Your task to perform on an android device: turn on showing notifications on the lock screen Image 0: 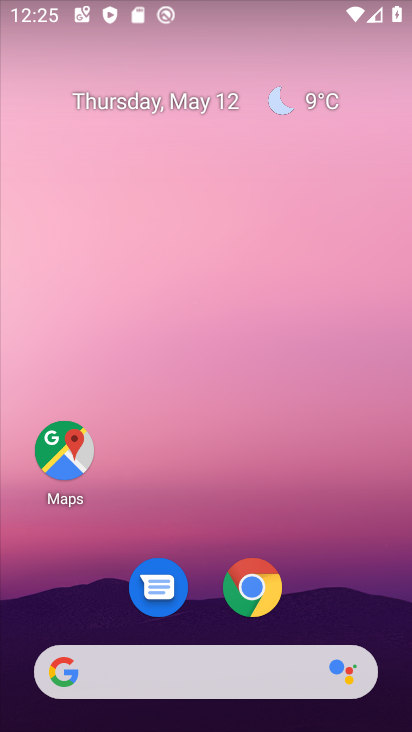
Step 0: drag from (203, 644) to (149, 49)
Your task to perform on an android device: turn on showing notifications on the lock screen Image 1: 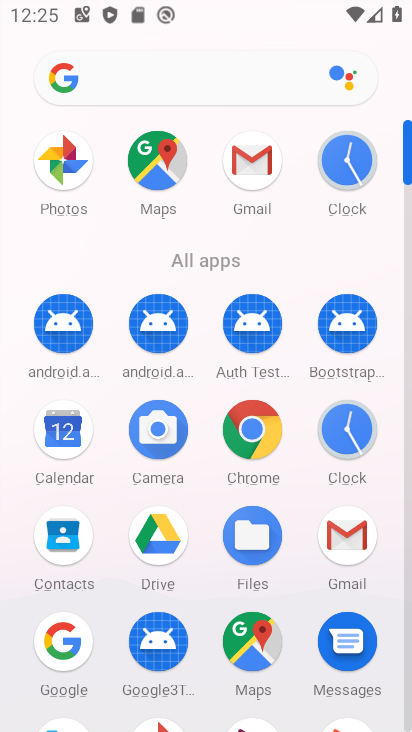
Step 1: drag from (206, 595) to (207, 101)
Your task to perform on an android device: turn on showing notifications on the lock screen Image 2: 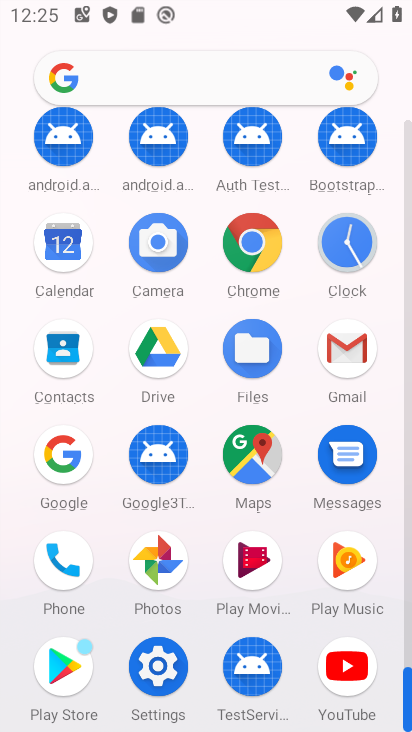
Step 2: click (165, 655)
Your task to perform on an android device: turn on showing notifications on the lock screen Image 3: 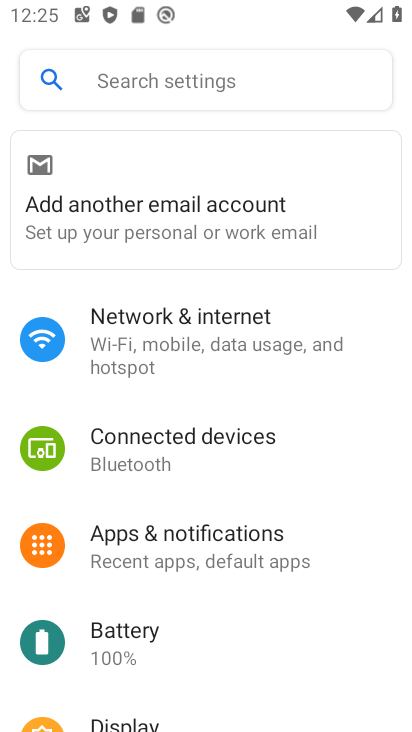
Step 3: click (180, 542)
Your task to perform on an android device: turn on showing notifications on the lock screen Image 4: 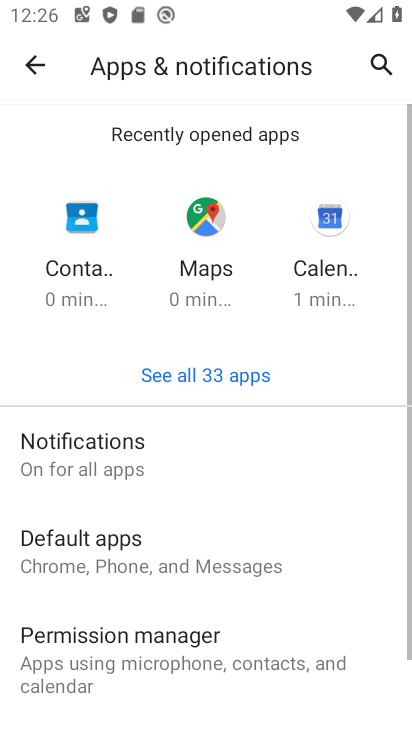
Step 4: click (105, 474)
Your task to perform on an android device: turn on showing notifications on the lock screen Image 5: 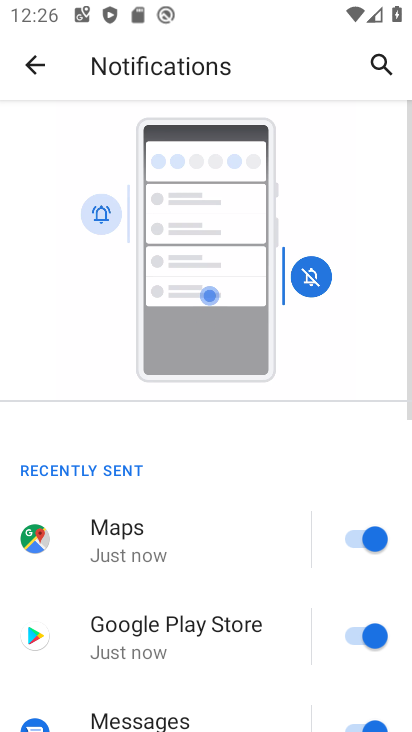
Step 5: drag from (185, 593) to (110, 50)
Your task to perform on an android device: turn on showing notifications on the lock screen Image 6: 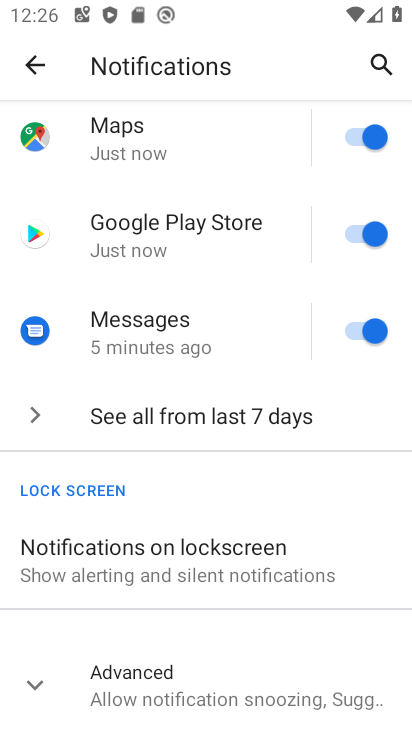
Step 6: click (193, 549)
Your task to perform on an android device: turn on showing notifications on the lock screen Image 7: 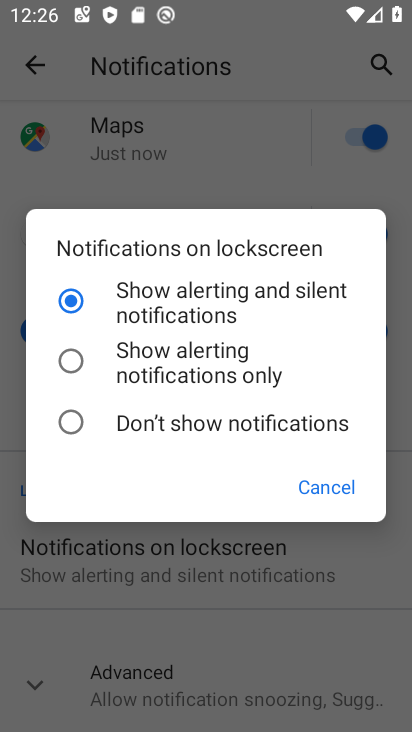
Step 7: task complete